Your task to perform on an android device: Search for "logitech g903" on bestbuy.com, select the first entry, and add it to the cart. Image 0: 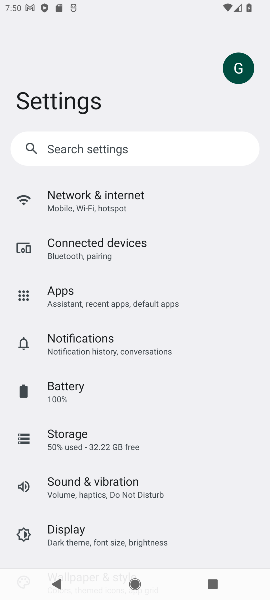
Step 0: press home button
Your task to perform on an android device: Search for "logitech g903" on bestbuy.com, select the first entry, and add it to the cart. Image 1: 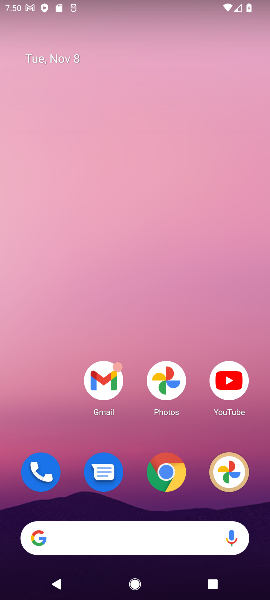
Step 1: click (164, 470)
Your task to perform on an android device: Search for "logitech g903" on bestbuy.com, select the first entry, and add it to the cart. Image 2: 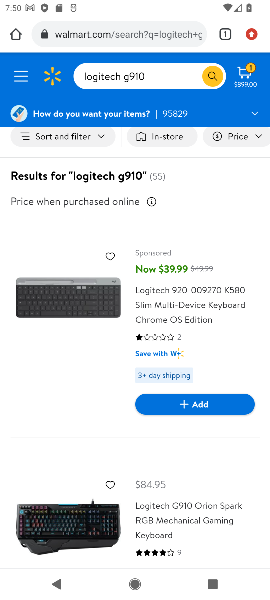
Step 2: click (145, 32)
Your task to perform on an android device: Search for "logitech g903" on bestbuy.com, select the first entry, and add it to the cart. Image 3: 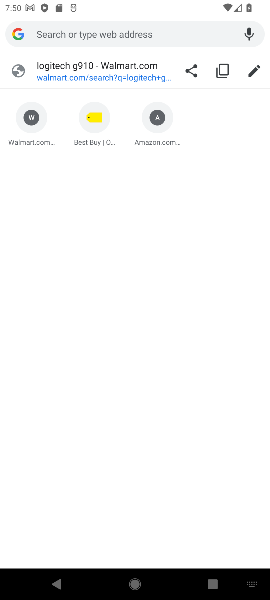
Step 3: click (98, 32)
Your task to perform on an android device: Search for "logitech g903" on bestbuy.com, select the first entry, and add it to the cart. Image 4: 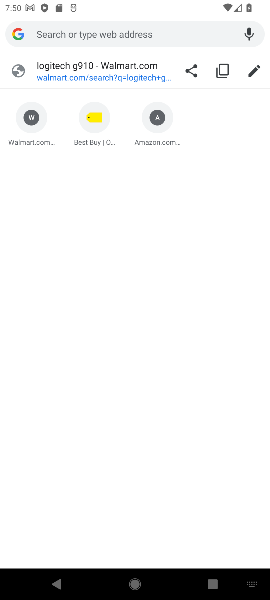
Step 4: click (97, 31)
Your task to perform on an android device: Search for "logitech g903" on bestbuy.com, select the first entry, and add it to the cart. Image 5: 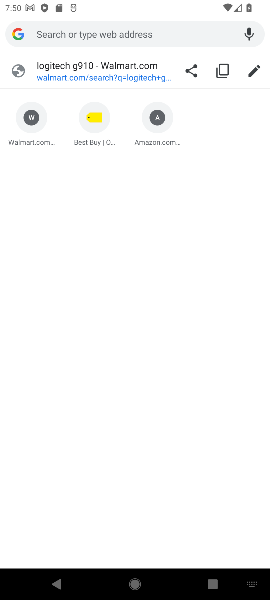
Step 5: click (99, 143)
Your task to perform on an android device: Search for "logitech g903" on bestbuy.com, select the first entry, and add it to the cart. Image 6: 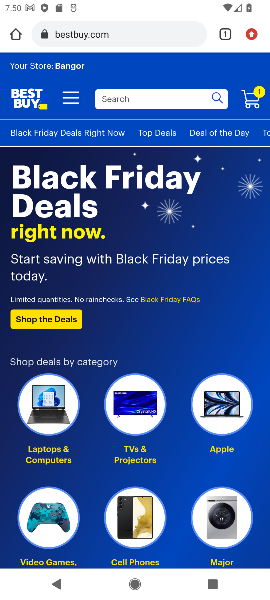
Step 6: click (133, 101)
Your task to perform on an android device: Search for "logitech g903" on bestbuy.com, select the first entry, and add it to the cart. Image 7: 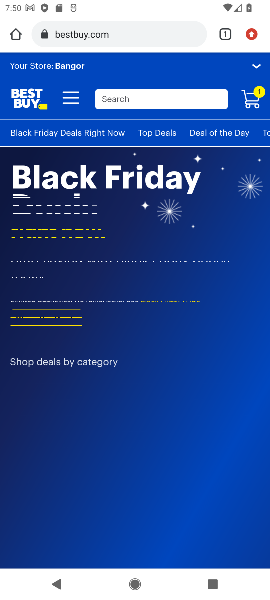
Step 7: click (136, 102)
Your task to perform on an android device: Search for "logitech g903" on bestbuy.com, select the first entry, and add it to the cart. Image 8: 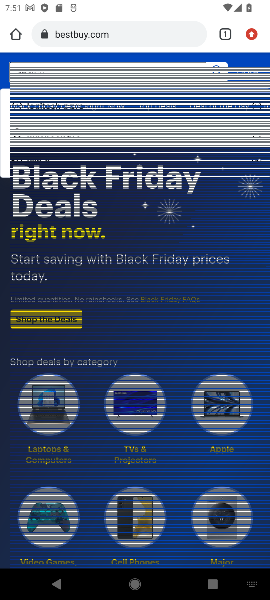
Step 8: type "logitech g903"
Your task to perform on an android device: Search for "logitech g903" on bestbuy.com, select the first entry, and add it to the cart. Image 9: 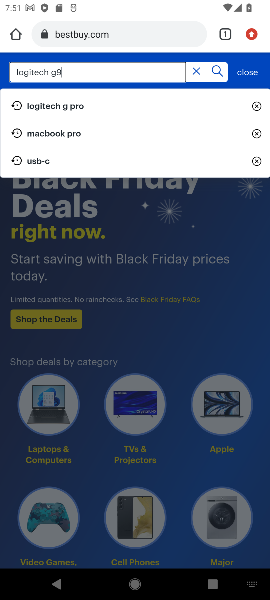
Step 9: press enter
Your task to perform on an android device: Search for "logitech g903" on bestbuy.com, select the first entry, and add it to the cart. Image 10: 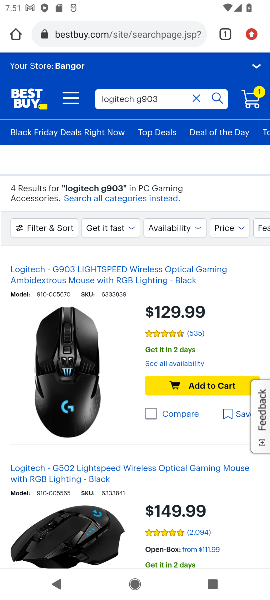
Step 10: click (208, 381)
Your task to perform on an android device: Search for "logitech g903" on bestbuy.com, select the first entry, and add it to the cart. Image 11: 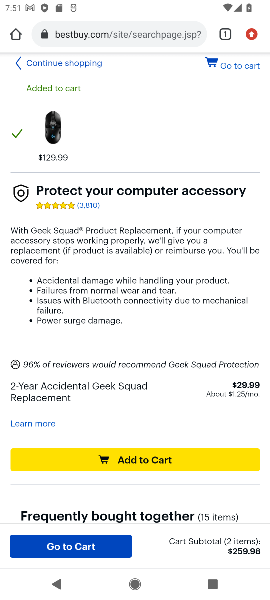
Step 11: click (248, 62)
Your task to perform on an android device: Search for "logitech g903" on bestbuy.com, select the first entry, and add it to the cart. Image 12: 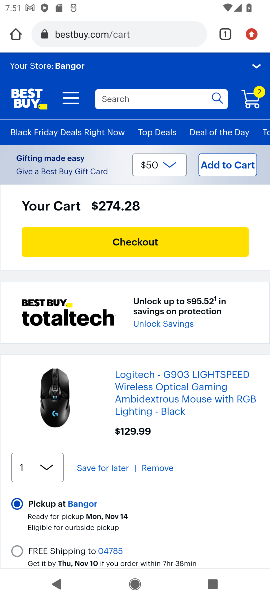
Step 12: drag from (131, 494) to (226, 129)
Your task to perform on an android device: Search for "logitech g903" on bestbuy.com, select the first entry, and add it to the cart. Image 13: 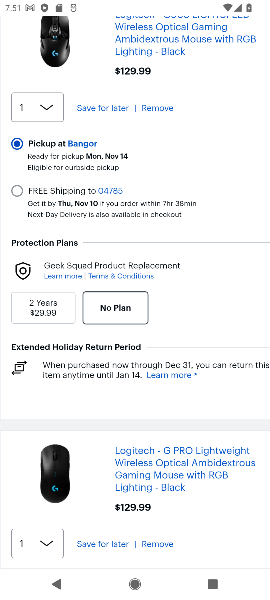
Step 13: drag from (117, 479) to (190, 237)
Your task to perform on an android device: Search for "logitech g903" on bestbuy.com, select the first entry, and add it to the cart. Image 14: 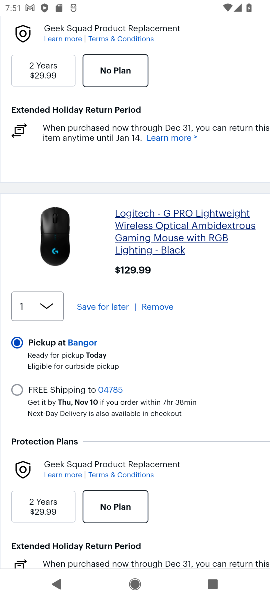
Step 14: click (156, 306)
Your task to perform on an android device: Search for "logitech g903" on bestbuy.com, select the first entry, and add it to the cart. Image 15: 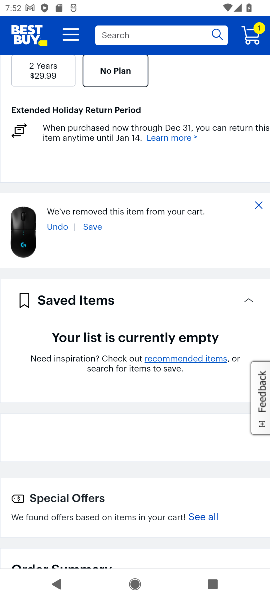
Step 15: task complete